Your task to perform on an android device: Go to Google Image 0: 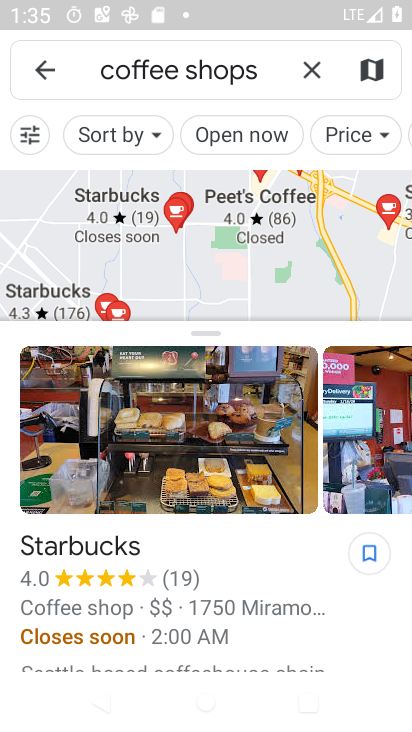
Step 0: press back button
Your task to perform on an android device: Go to Google Image 1: 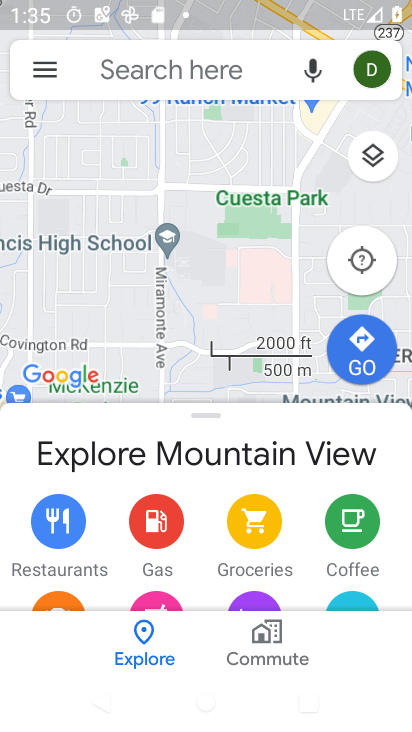
Step 1: task complete